Your task to perform on an android device: open app "Spotify: Music and Podcasts" Image 0: 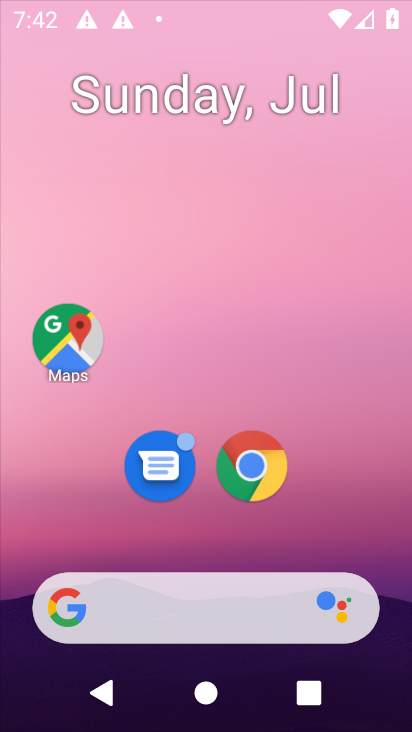
Step 0: click (157, 567)
Your task to perform on an android device: open app "Spotify: Music and Podcasts" Image 1: 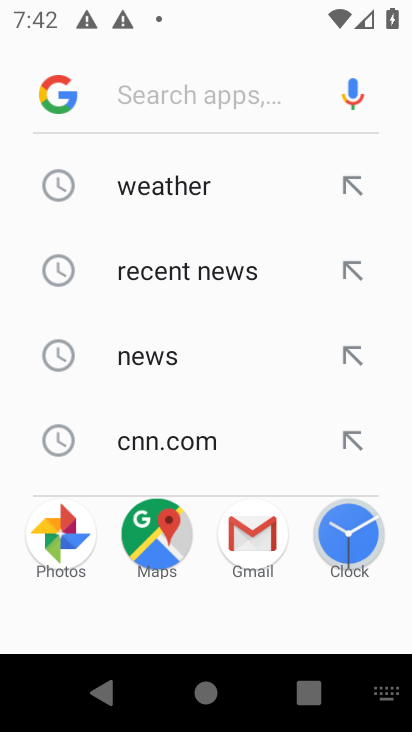
Step 1: press home button
Your task to perform on an android device: open app "Spotify: Music and Podcasts" Image 2: 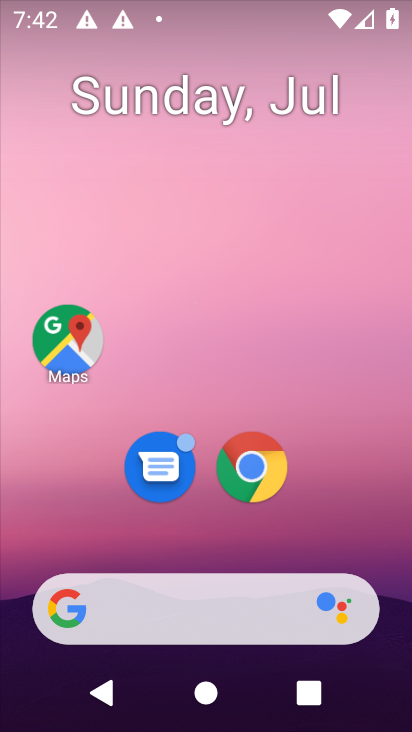
Step 2: drag from (176, 553) to (266, 112)
Your task to perform on an android device: open app "Spotify: Music and Podcasts" Image 3: 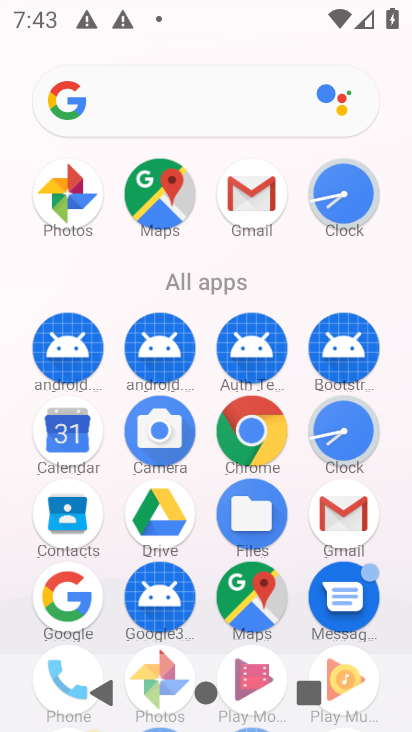
Step 3: drag from (199, 566) to (296, 92)
Your task to perform on an android device: open app "Spotify: Music and Podcasts" Image 4: 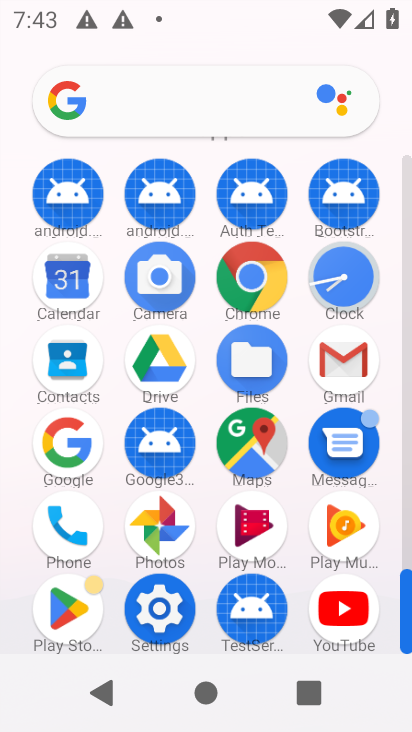
Step 4: click (67, 600)
Your task to perform on an android device: open app "Spotify: Music and Podcasts" Image 5: 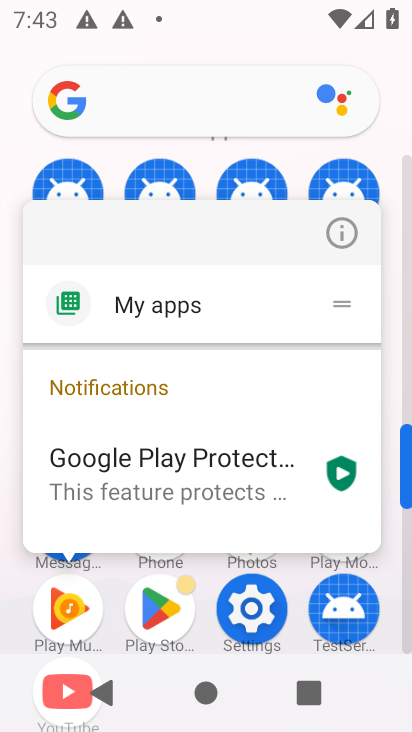
Step 5: click (337, 224)
Your task to perform on an android device: open app "Spotify: Music and Podcasts" Image 6: 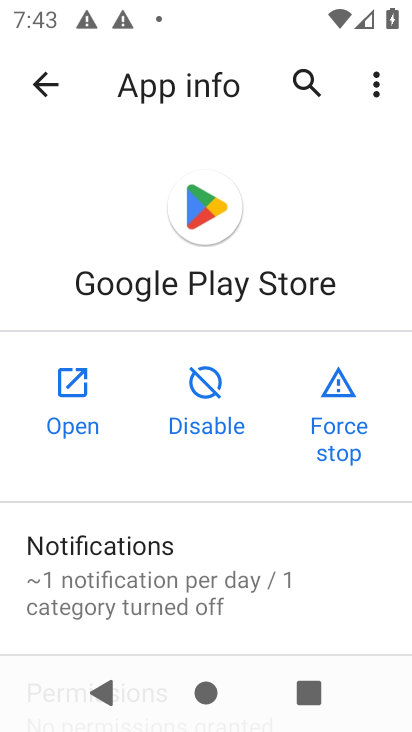
Step 6: click (71, 376)
Your task to perform on an android device: open app "Spotify: Music and Podcasts" Image 7: 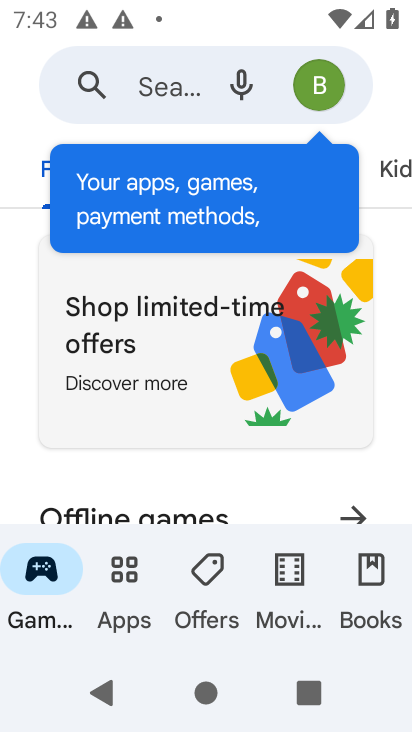
Step 7: click (151, 75)
Your task to perform on an android device: open app "Spotify: Music and Podcasts" Image 8: 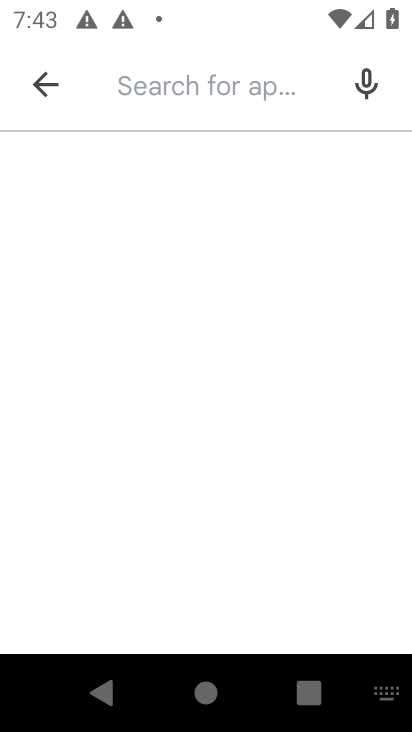
Step 8: type "Spotify: Music and Podcasts"
Your task to perform on an android device: open app "Spotify: Music and Podcasts" Image 9: 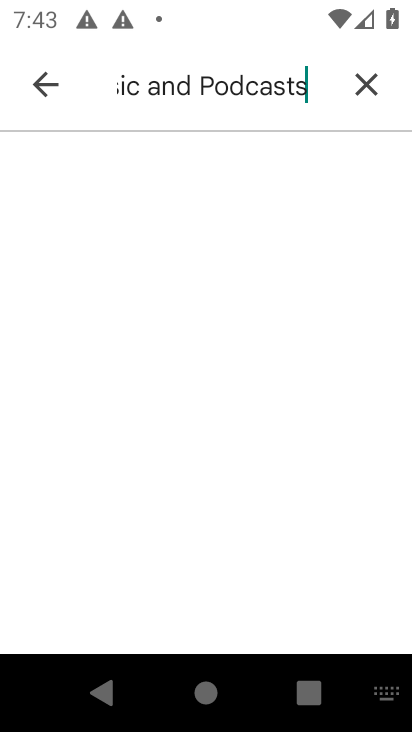
Step 9: type ""
Your task to perform on an android device: open app "Spotify: Music and Podcasts" Image 10: 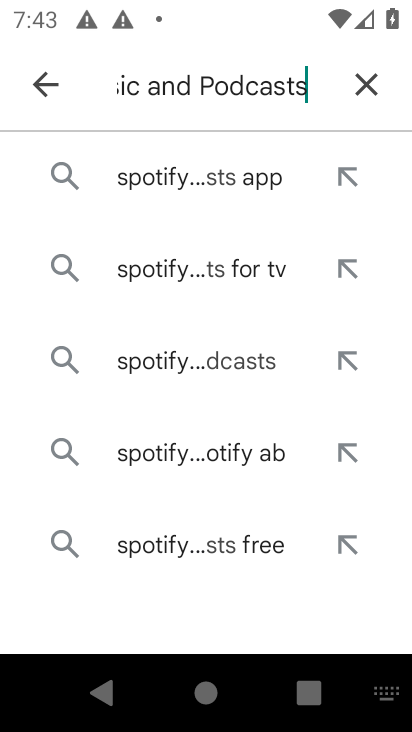
Step 10: click (169, 179)
Your task to perform on an android device: open app "Spotify: Music and Podcasts" Image 11: 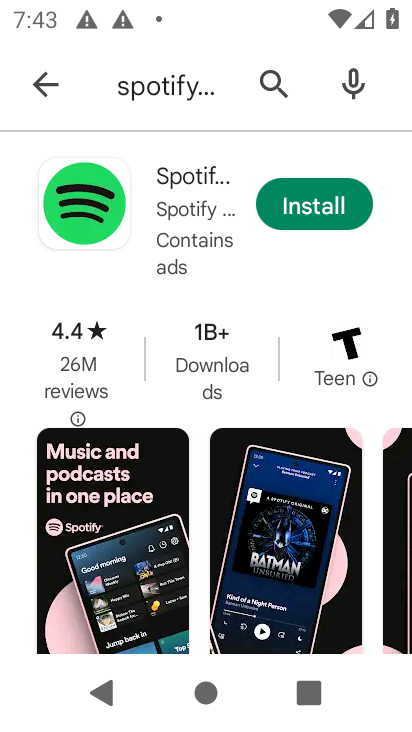
Step 11: click (185, 214)
Your task to perform on an android device: open app "Spotify: Music and Podcasts" Image 12: 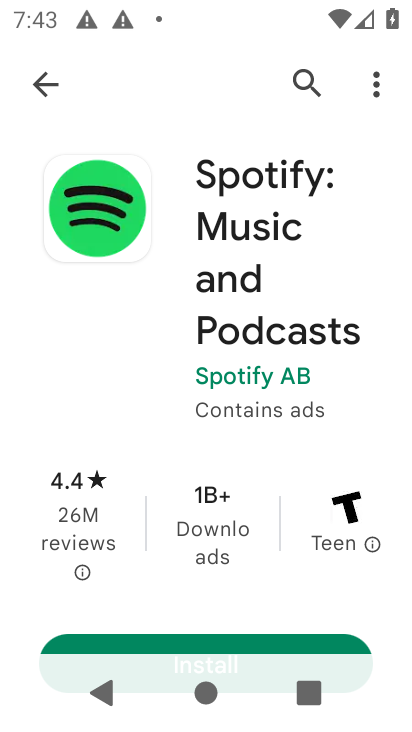
Step 12: task complete